Your task to perform on an android device: Open ESPN.com Image 0: 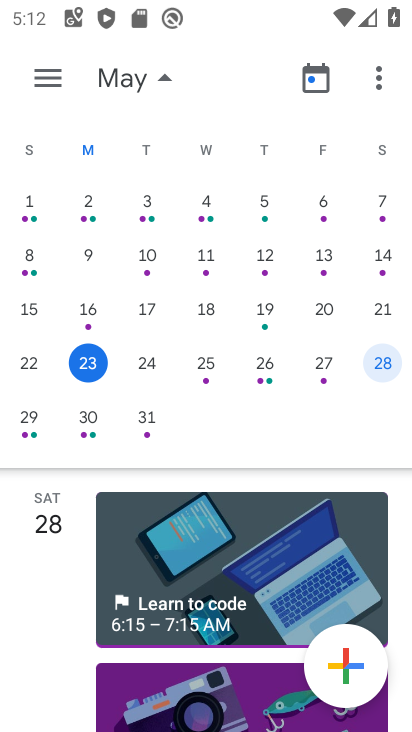
Step 0: press home button
Your task to perform on an android device: Open ESPN.com Image 1: 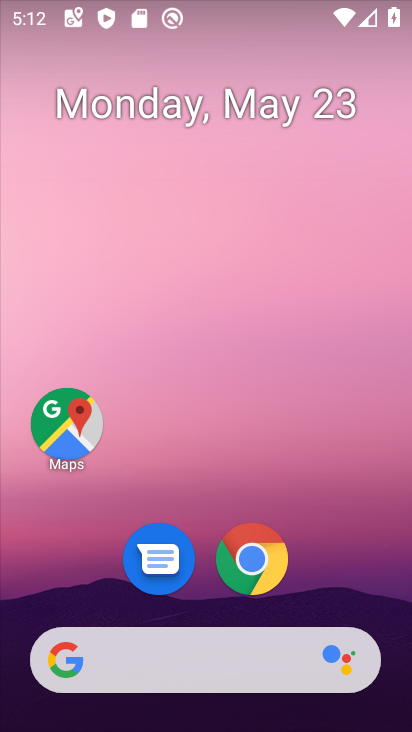
Step 1: drag from (253, 577) to (271, 55)
Your task to perform on an android device: Open ESPN.com Image 2: 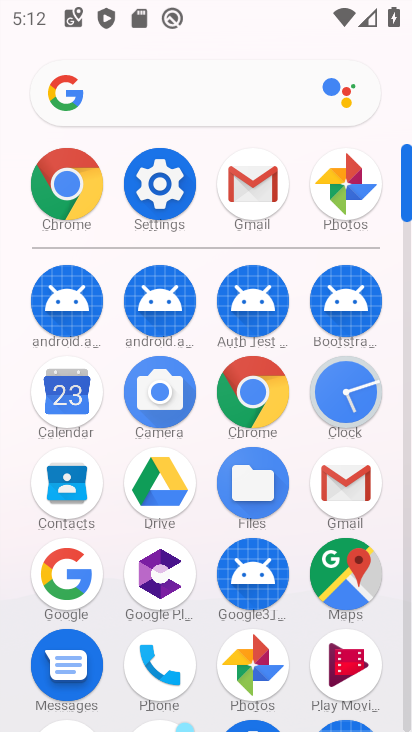
Step 2: click (244, 379)
Your task to perform on an android device: Open ESPN.com Image 3: 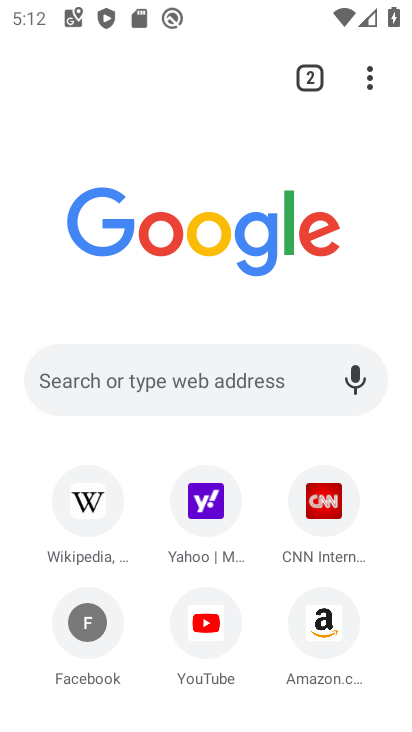
Step 3: click (231, 372)
Your task to perform on an android device: Open ESPN.com Image 4: 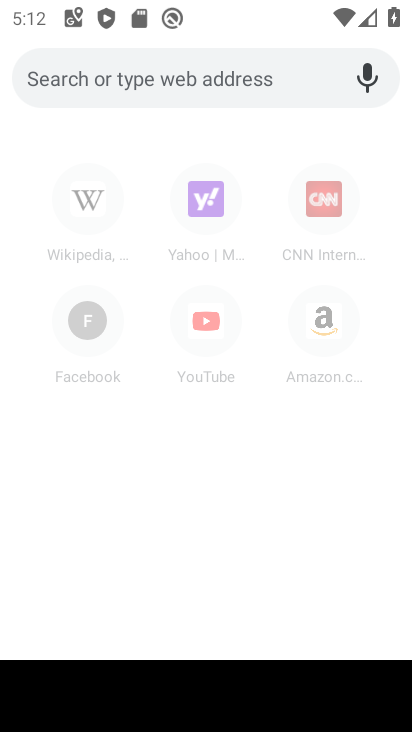
Step 4: type "espn.com"
Your task to perform on an android device: Open ESPN.com Image 5: 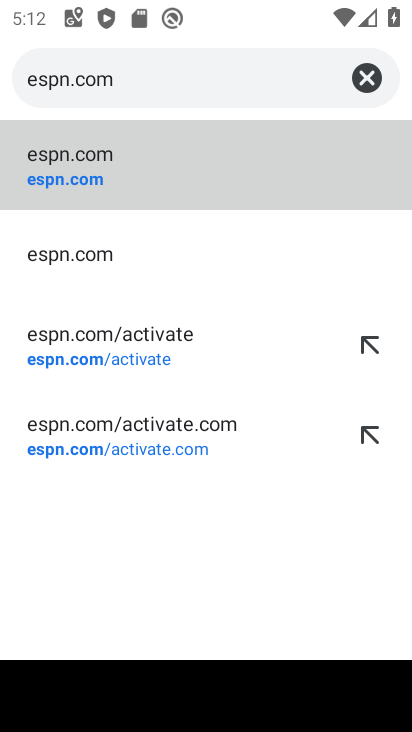
Step 5: click (174, 200)
Your task to perform on an android device: Open ESPN.com Image 6: 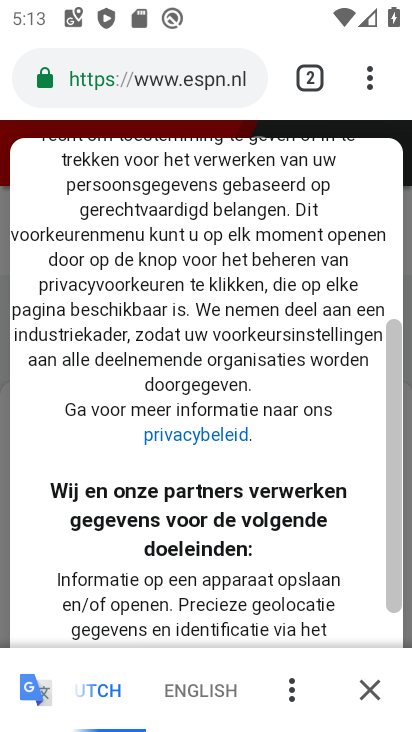
Step 6: task complete